Your task to perform on an android device: turn on the 24-hour format for clock Image 0: 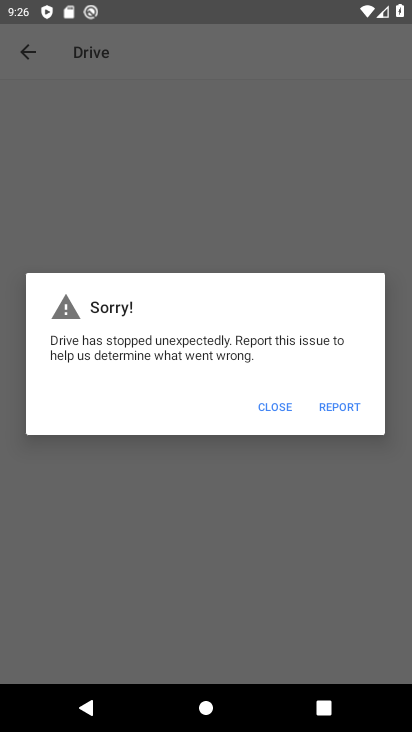
Step 0: press home button
Your task to perform on an android device: turn on the 24-hour format for clock Image 1: 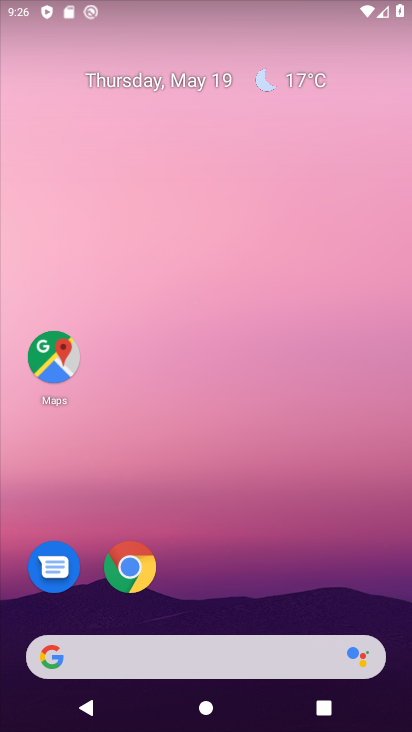
Step 1: drag from (327, 556) to (294, 6)
Your task to perform on an android device: turn on the 24-hour format for clock Image 2: 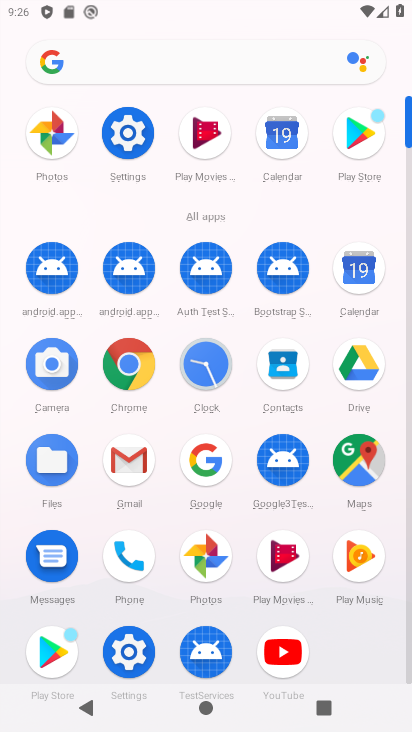
Step 2: click (201, 356)
Your task to perform on an android device: turn on the 24-hour format for clock Image 3: 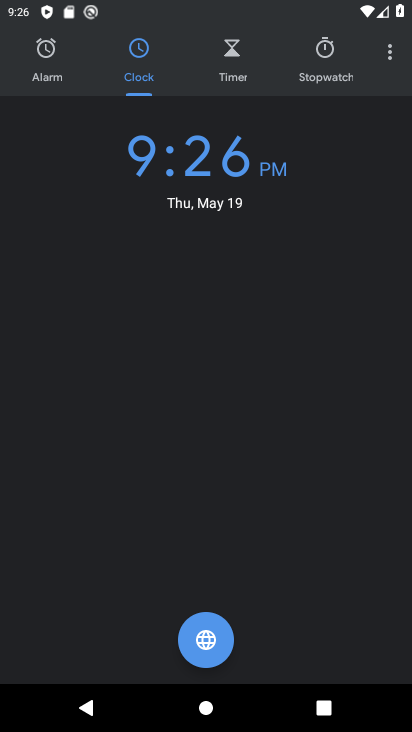
Step 3: click (392, 62)
Your task to perform on an android device: turn on the 24-hour format for clock Image 4: 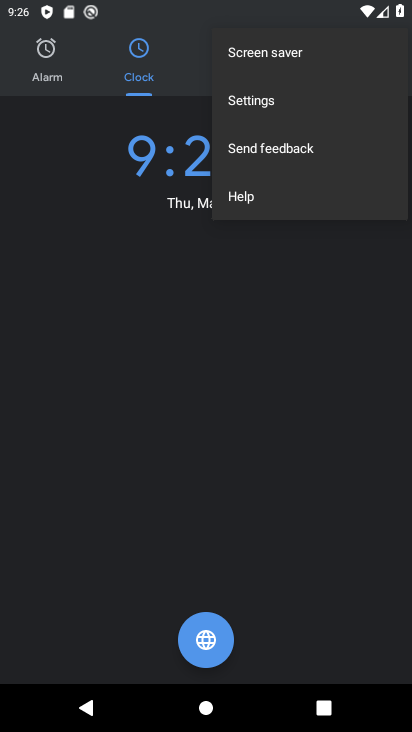
Step 4: click (267, 109)
Your task to perform on an android device: turn on the 24-hour format for clock Image 5: 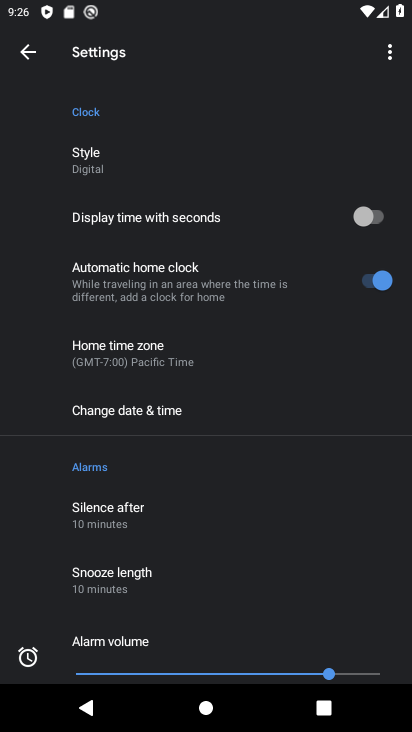
Step 5: click (161, 408)
Your task to perform on an android device: turn on the 24-hour format for clock Image 6: 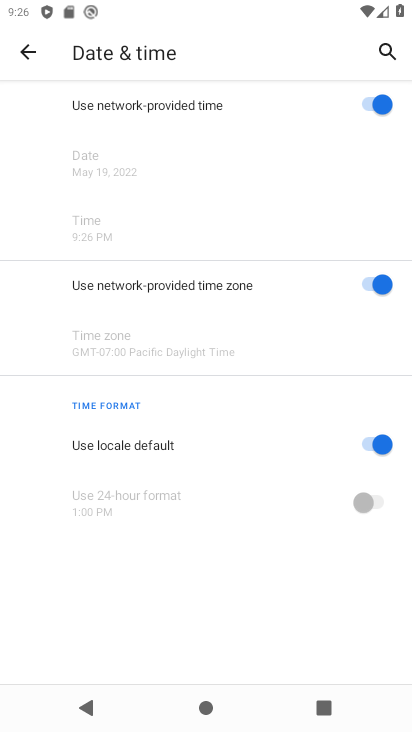
Step 6: click (377, 448)
Your task to perform on an android device: turn on the 24-hour format for clock Image 7: 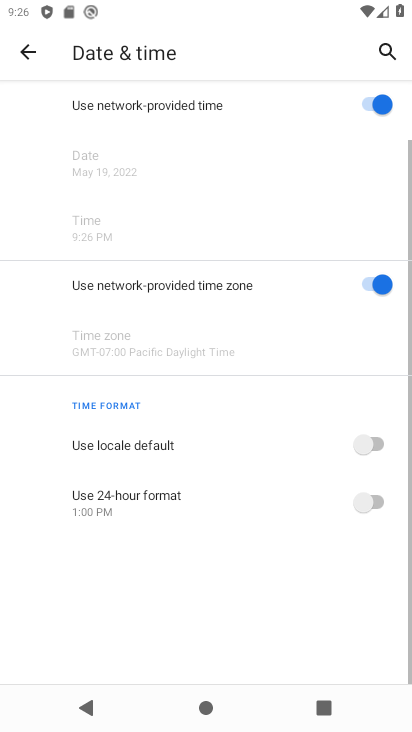
Step 7: click (370, 498)
Your task to perform on an android device: turn on the 24-hour format for clock Image 8: 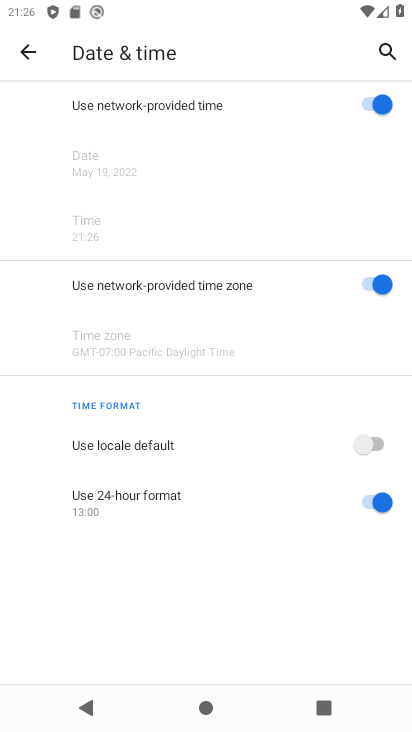
Step 8: task complete